Your task to perform on an android device: What's on my calendar tomorrow? Image 0: 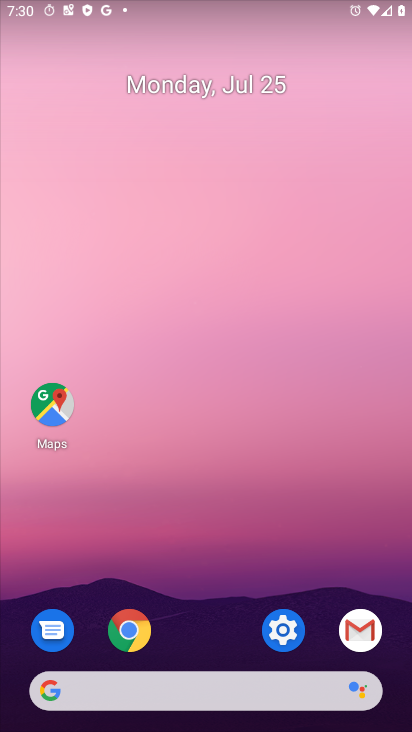
Step 0: drag from (233, 708) to (257, 267)
Your task to perform on an android device: What's on my calendar tomorrow? Image 1: 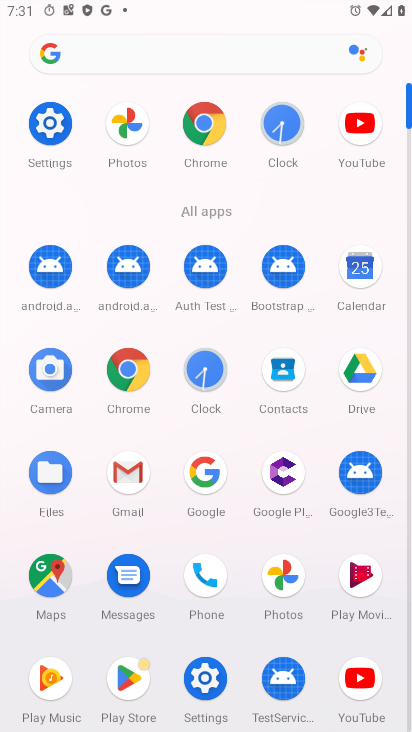
Step 1: click (358, 289)
Your task to perform on an android device: What's on my calendar tomorrow? Image 2: 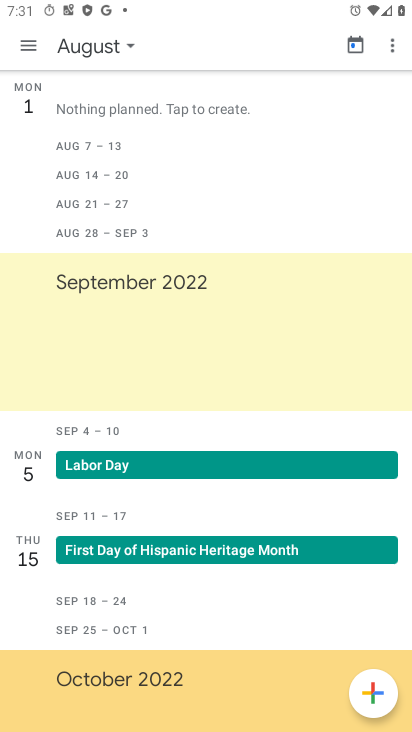
Step 2: click (27, 42)
Your task to perform on an android device: What's on my calendar tomorrow? Image 3: 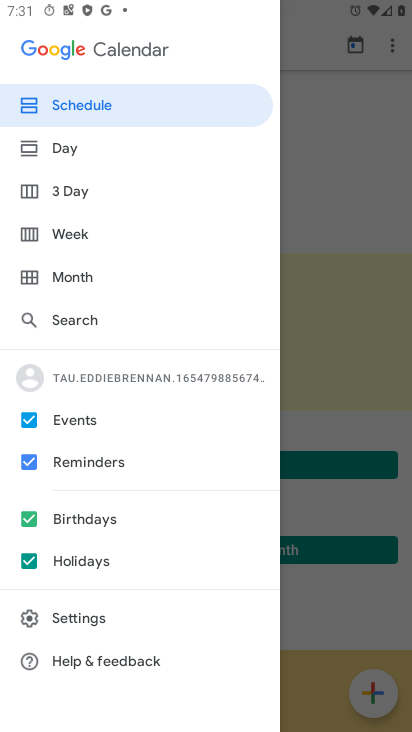
Step 3: click (61, 270)
Your task to perform on an android device: What's on my calendar tomorrow? Image 4: 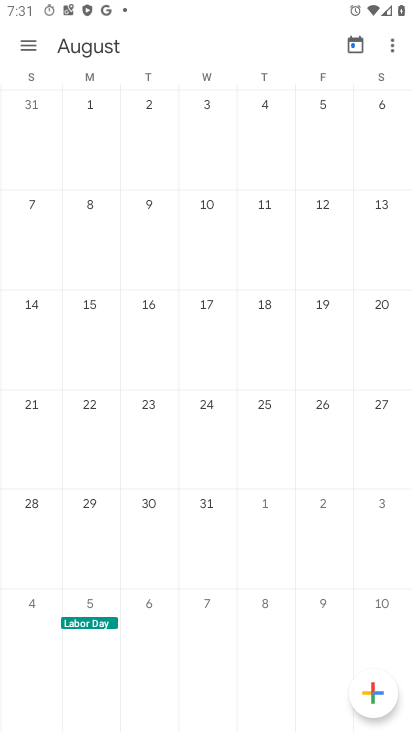
Step 4: drag from (43, 405) to (397, 306)
Your task to perform on an android device: What's on my calendar tomorrow? Image 5: 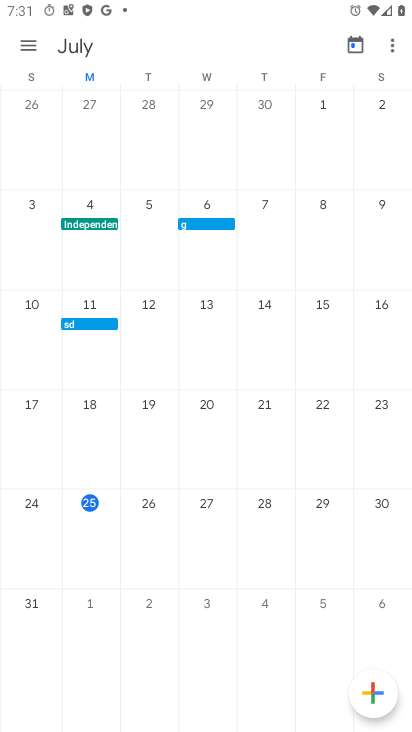
Step 5: click (142, 511)
Your task to perform on an android device: What's on my calendar tomorrow? Image 6: 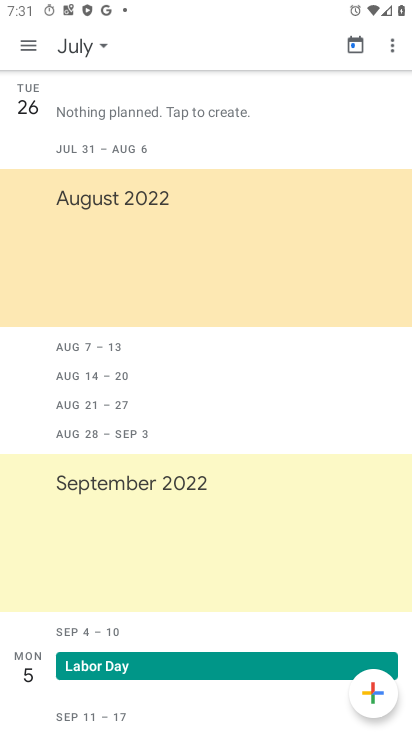
Step 6: task complete